Your task to perform on an android device: Clear the cart on ebay.com. Search for "amazon basics triple a" on ebay.com, select the first entry, and add it to the cart. Image 0: 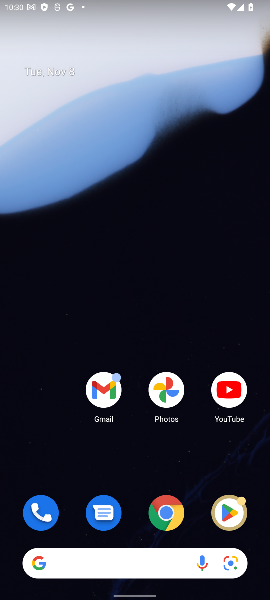
Step 0: click (167, 512)
Your task to perform on an android device: Clear the cart on ebay.com. Search for "amazon basics triple a" on ebay.com, select the first entry, and add it to the cart. Image 1: 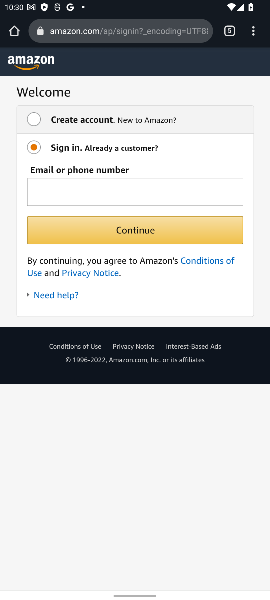
Step 1: click (232, 36)
Your task to perform on an android device: Clear the cart on ebay.com. Search for "amazon basics triple a" on ebay.com, select the first entry, and add it to the cart. Image 2: 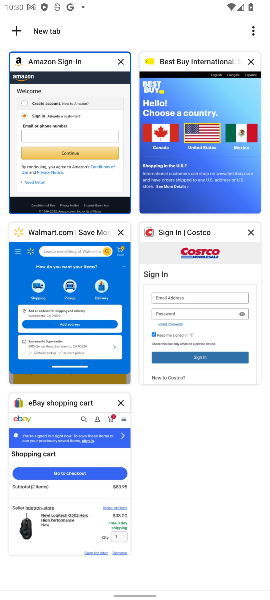
Step 2: click (44, 456)
Your task to perform on an android device: Clear the cart on ebay.com. Search for "amazon basics triple a" on ebay.com, select the first entry, and add it to the cart. Image 3: 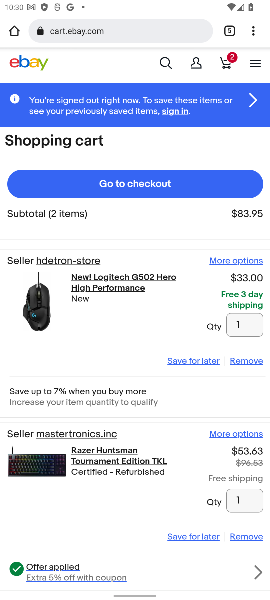
Step 3: click (245, 360)
Your task to perform on an android device: Clear the cart on ebay.com. Search for "amazon basics triple a" on ebay.com, select the first entry, and add it to the cart. Image 4: 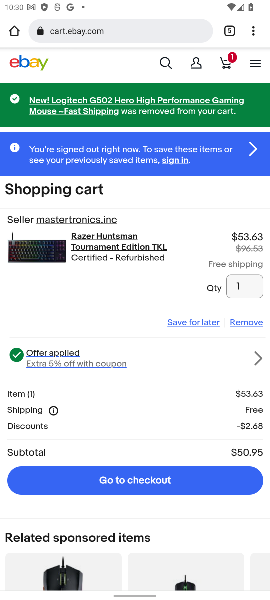
Step 4: click (249, 324)
Your task to perform on an android device: Clear the cart on ebay.com. Search for "amazon basics triple a" on ebay.com, select the first entry, and add it to the cart. Image 5: 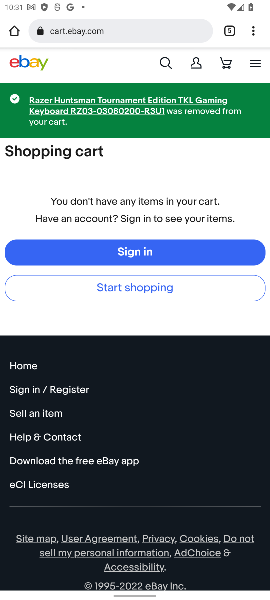
Step 5: click (164, 59)
Your task to perform on an android device: Clear the cart on ebay.com. Search for "amazon basics triple a" on ebay.com, select the first entry, and add it to the cart. Image 6: 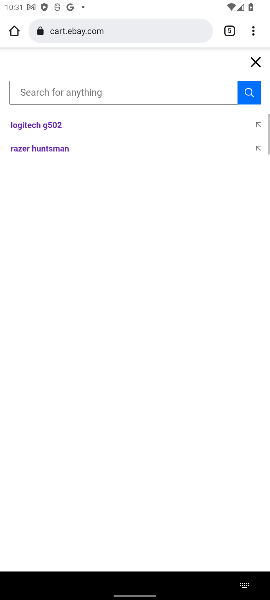
Step 6: type "amazon basics triple a battery"
Your task to perform on an android device: Clear the cart on ebay.com. Search for "amazon basics triple a" on ebay.com, select the first entry, and add it to the cart. Image 7: 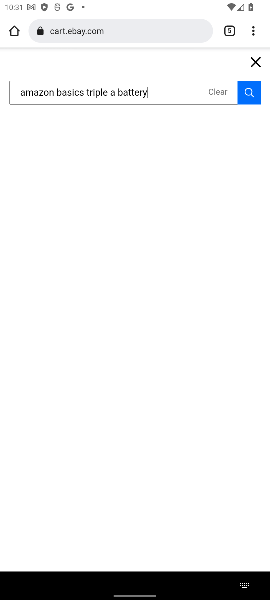
Step 7: click (254, 95)
Your task to perform on an android device: Clear the cart on ebay.com. Search for "amazon basics triple a" on ebay.com, select the first entry, and add it to the cart. Image 8: 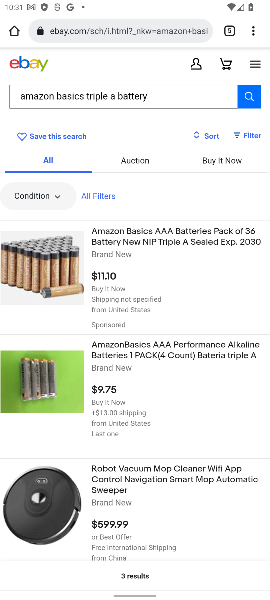
Step 8: click (174, 237)
Your task to perform on an android device: Clear the cart on ebay.com. Search for "amazon basics triple a" on ebay.com, select the first entry, and add it to the cart. Image 9: 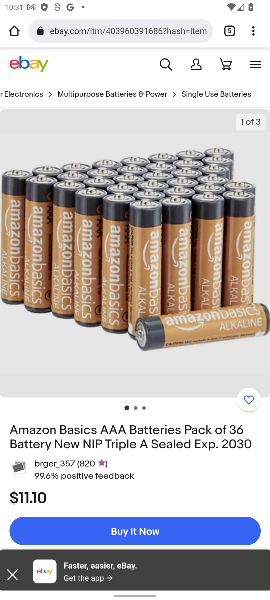
Step 9: click (123, 562)
Your task to perform on an android device: Clear the cart on ebay.com. Search for "amazon basics triple a" on ebay.com, select the first entry, and add it to the cart. Image 10: 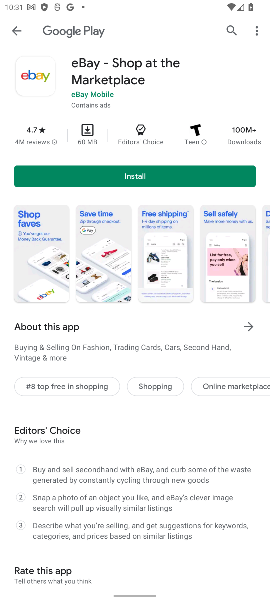
Step 10: press back button
Your task to perform on an android device: Clear the cart on ebay.com. Search for "amazon basics triple a" on ebay.com, select the first entry, and add it to the cart. Image 11: 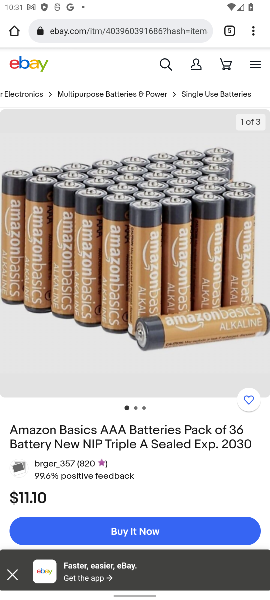
Step 11: click (17, 573)
Your task to perform on an android device: Clear the cart on ebay.com. Search for "amazon basics triple a" on ebay.com, select the first entry, and add it to the cart. Image 12: 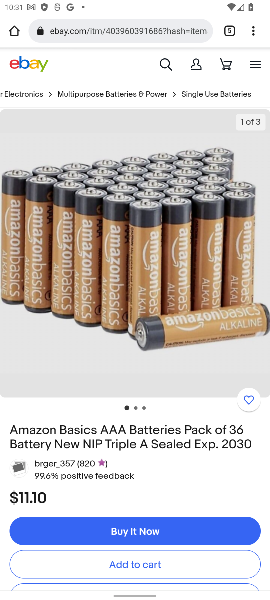
Step 12: click (163, 563)
Your task to perform on an android device: Clear the cart on ebay.com. Search for "amazon basics triple a" on ebay.com, select the first entry, and add it to the cart. Image 13: 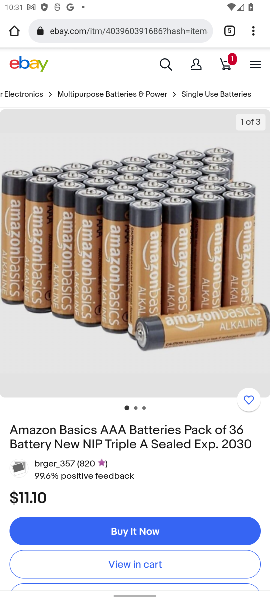
Step 13: task complete